Your task to perform on an android device: Go to Maps Image 0: 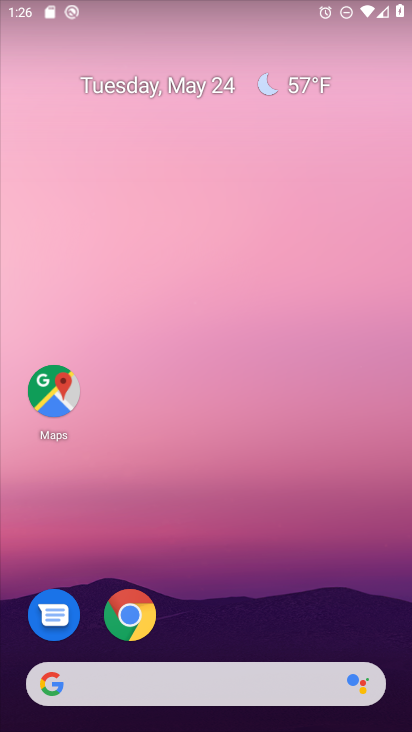
Step 0: click (65, 388)
Your task to perform on an android device: Go to Maps Image 1: 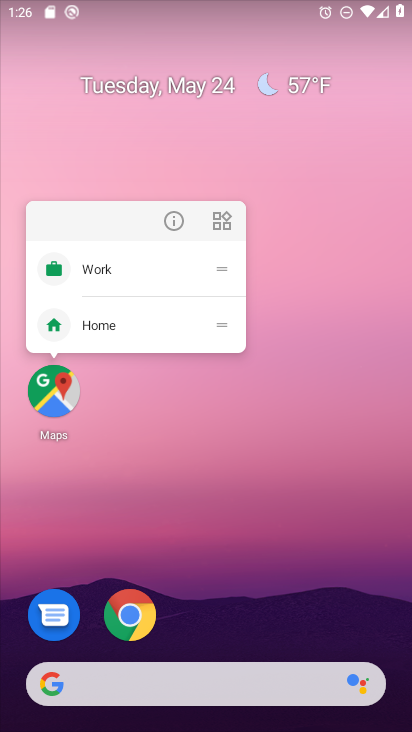
Step 1: click (60, 393)
Your task to perform on an android device: Go to Maps Image 2: 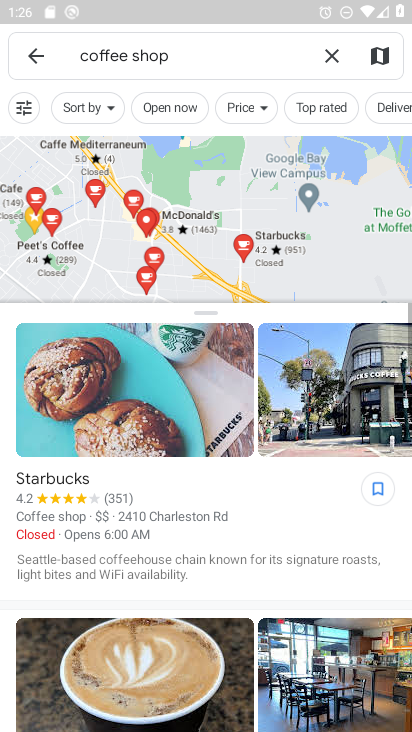
Step 2: click (333, 57)
Your task to perform on an android device: Go to Maps Image 3: 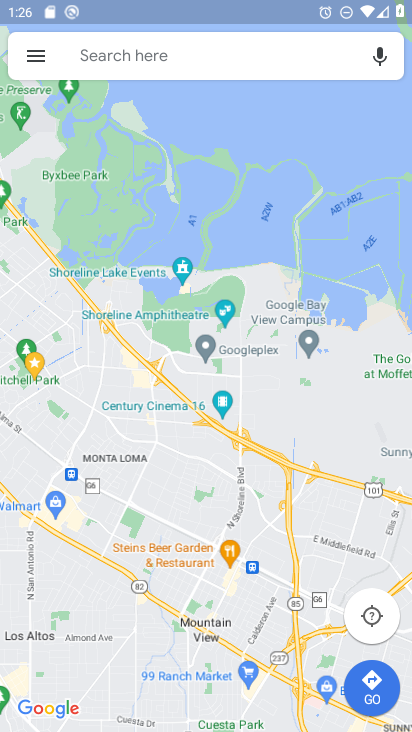
Step 3: task complete